Your task to perform on an android device: toggle improve location accuracy Image 0: 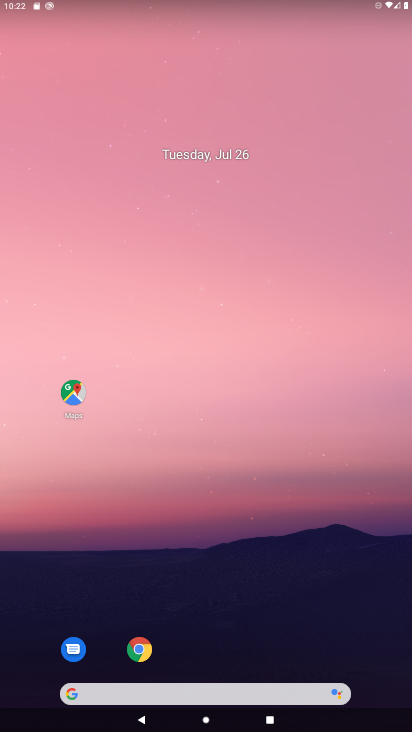
Step 0: drag from (205, 689) to (247, 147)
Your task to perform on an android device: toggle improve location accuracy Image 1: 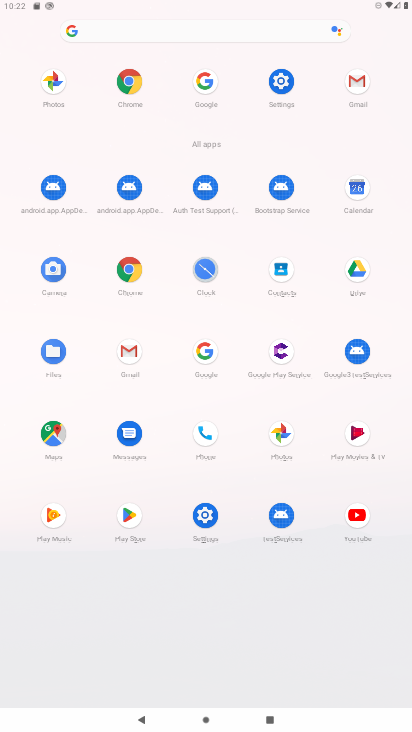
Step 1: click (277, 81)
Your task to perform on an android device: toggle improve location accuracy Image 2: 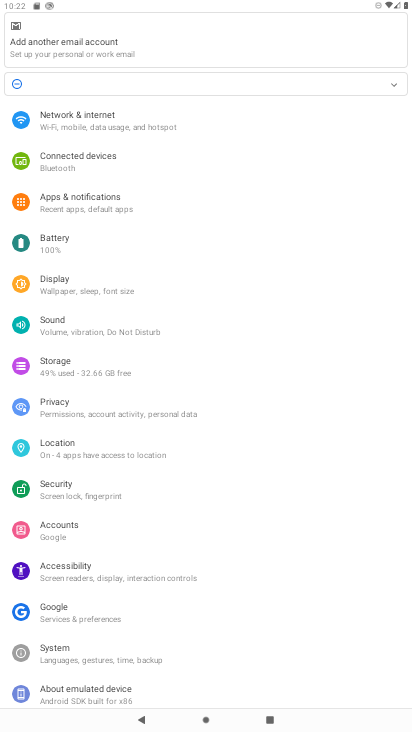
Step 2: click (85, 445)
Your task to perform on an android device: toggle improve location accuracy Image 3: 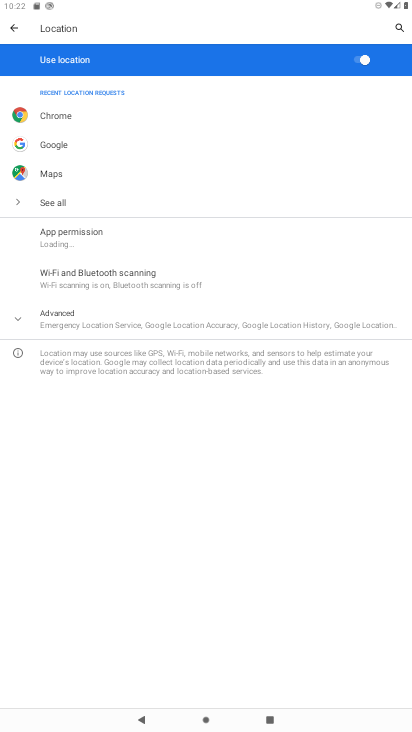
Step 3: click (75, 317)
Your task to perform on an android device: toggle improve location accuracy Image 4: 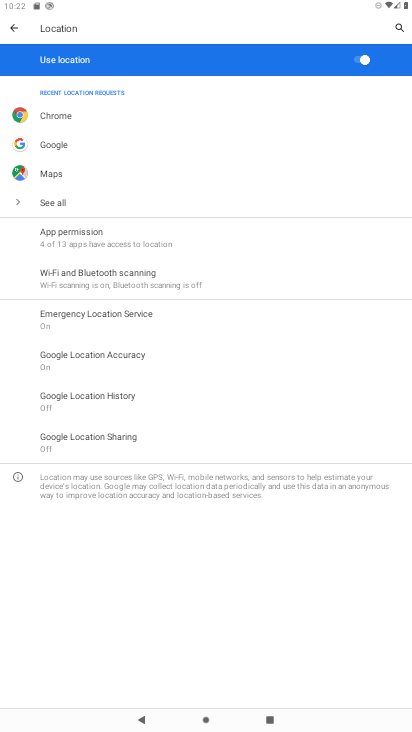
Step 4: click (97, 356)
Your task to perform on an android device: toggle improve location accuracy Image 5: 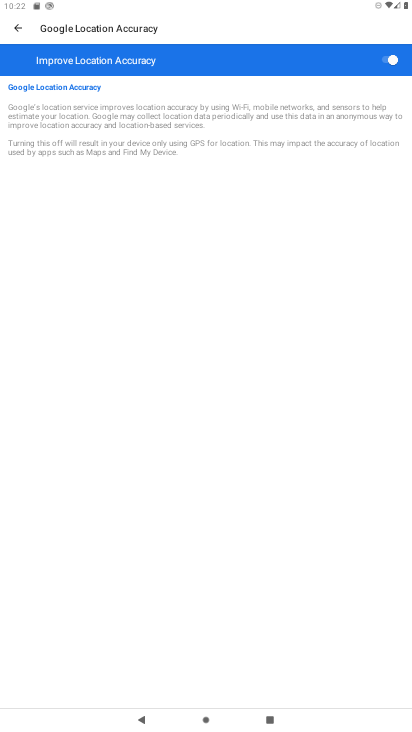
Step 5: click (390, 58)
Your task to perform on an android device: toggle improve location accuracy Image 6: 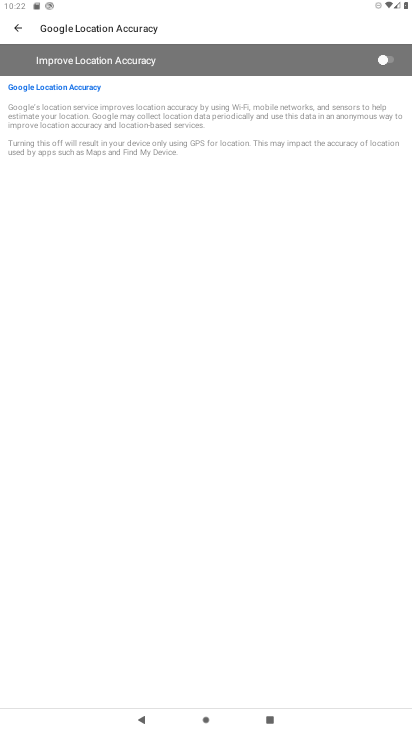
Step 6: task complete